Your task to perform on an android device: delete location history Image 0: 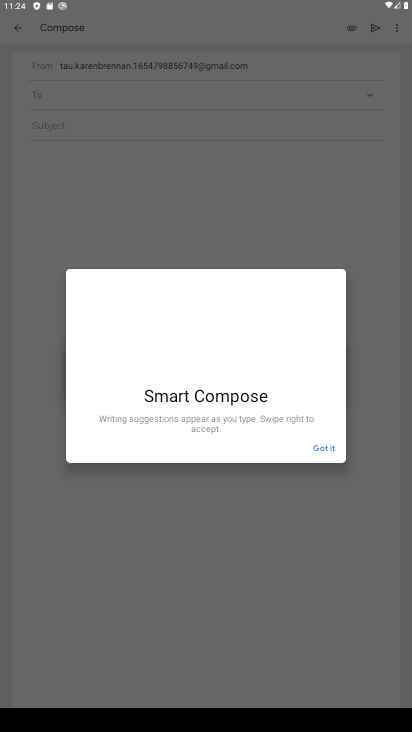
Step 0: press home button
Your task to perform on an android device: delete location history Image 1: 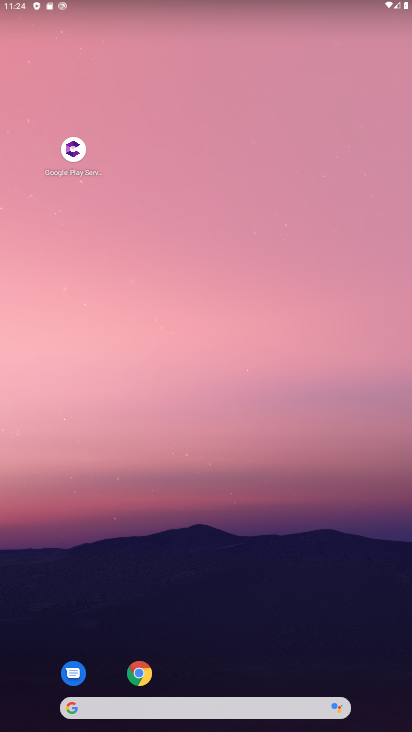
Step 1: drag from (202, 577) to (152, 54)
Your task to perform on an android device: delete location history Image 2: 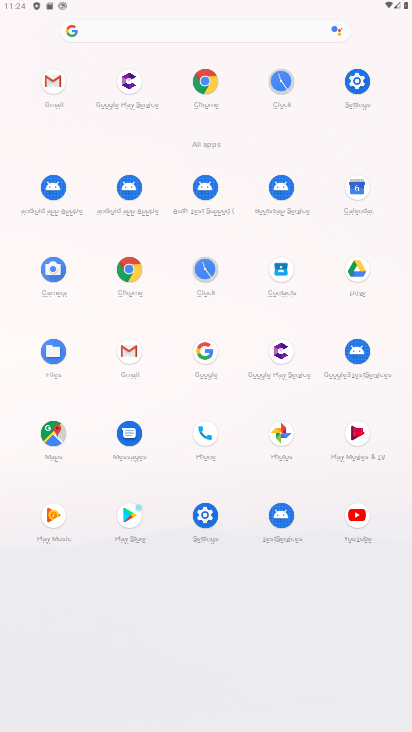
Step 2: click (52, 443)
Your task to perform on an android device: delete location history Image 3: 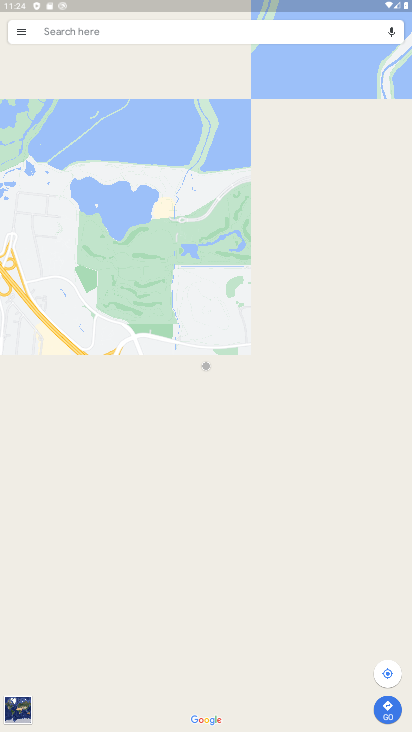
Step 3: click (22, 29)
Your task to perform on an android device: delete location history Image 4: 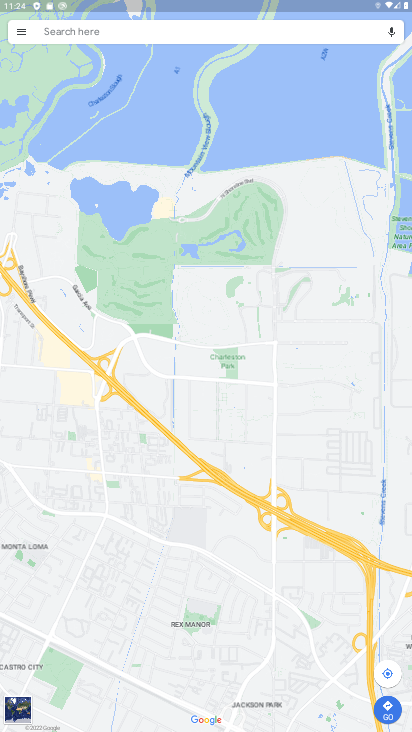
Step 4: click (17, 31)
Your task to perform on an android device: delete location history Image 5: 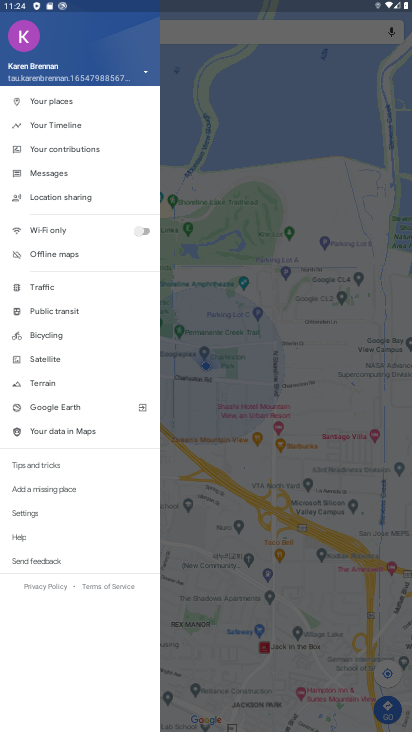
Step 5: click (66, 122)
Your task to perform on an android device: delete location history Image 6: 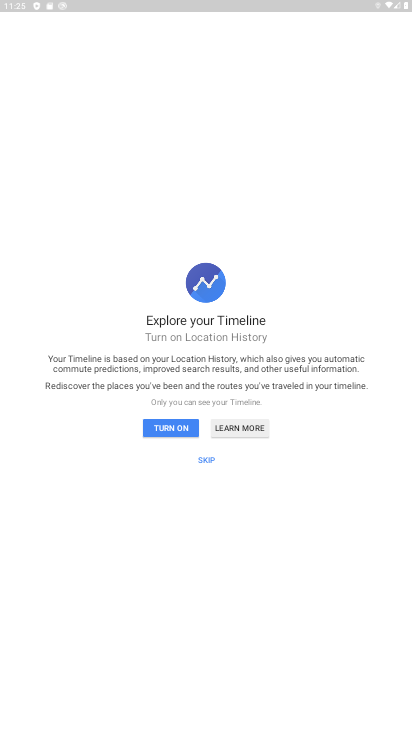
Step 6: click (177, 433)
Your task to perform on an android device: delete location history Image 7: 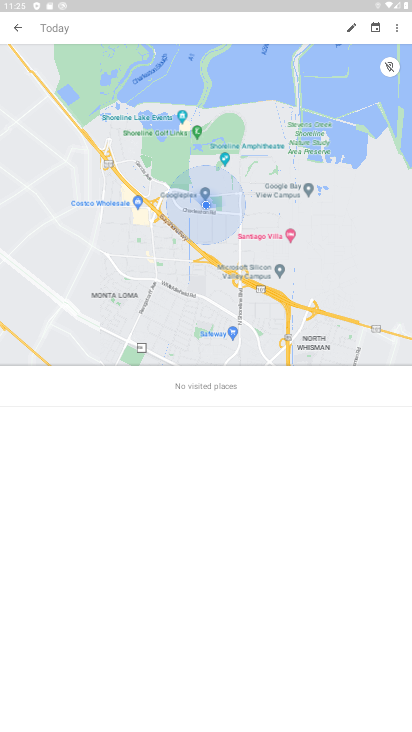
Step 7: click (396, 30)
Your task to perform on an android device: delete location history Image 8: 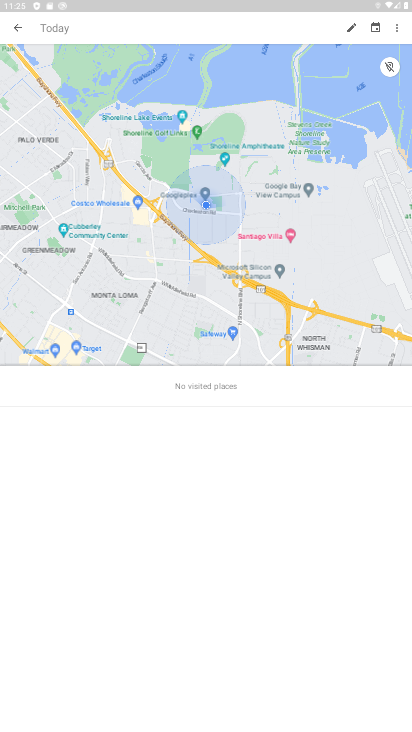
Step 8: click (398, 26)
Your task to perform on an android device: delete location history Image 9: 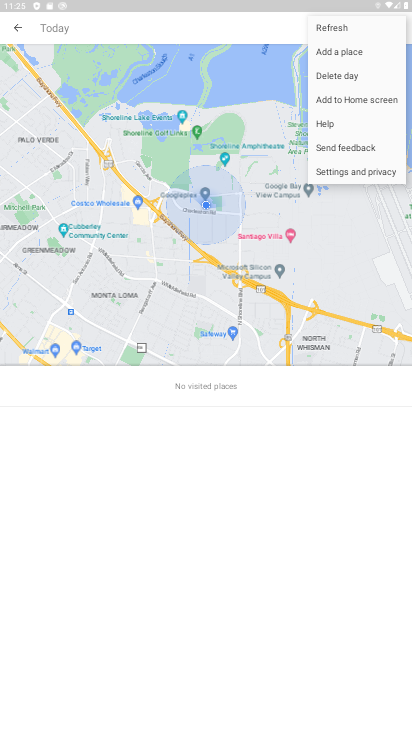
Step 9: click (353, 168)
Your task to perform on an android device: delete location history Image 10: 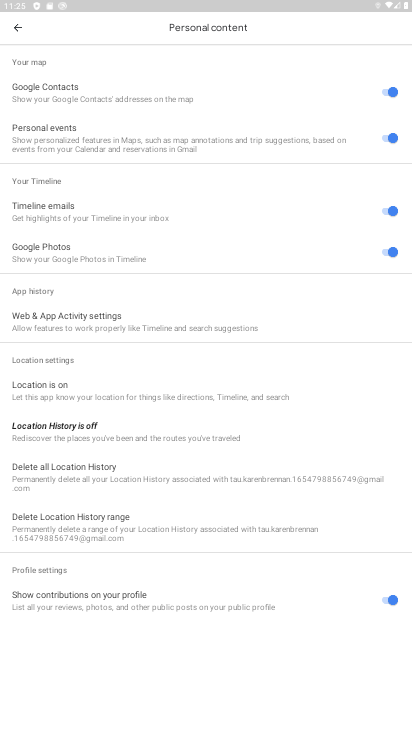
Step 10: click (90, 465)
Your task to perform on an android device: delete location history Image 11: 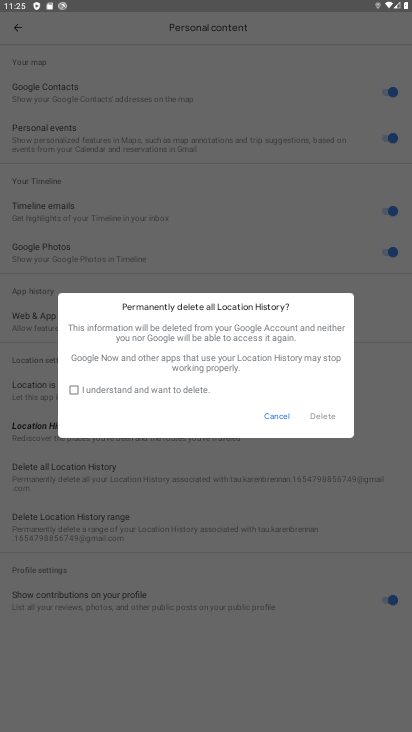
Step 11: click (70, 388)
Your task to perform on an android device: delete location history Image 12: 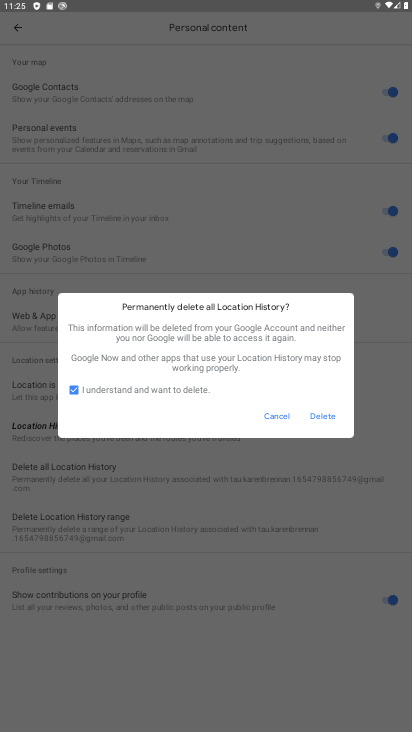
Step 12: click (325, 413)
Your task to perform on an android device: delete location history Image 13: 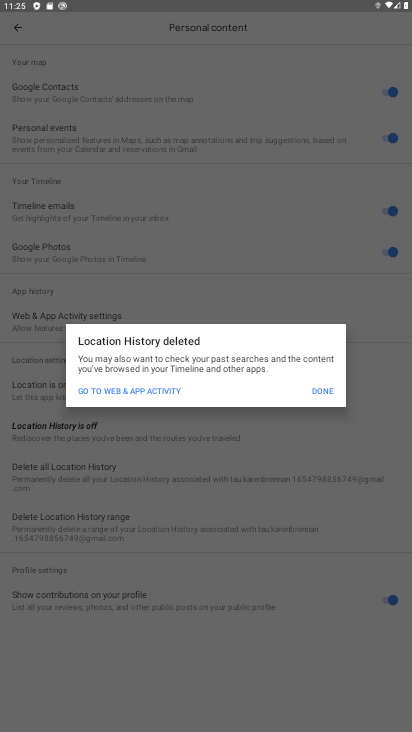
Step 13: click (317, 388)
Your task to perform on an android device: delete location history Image 14: 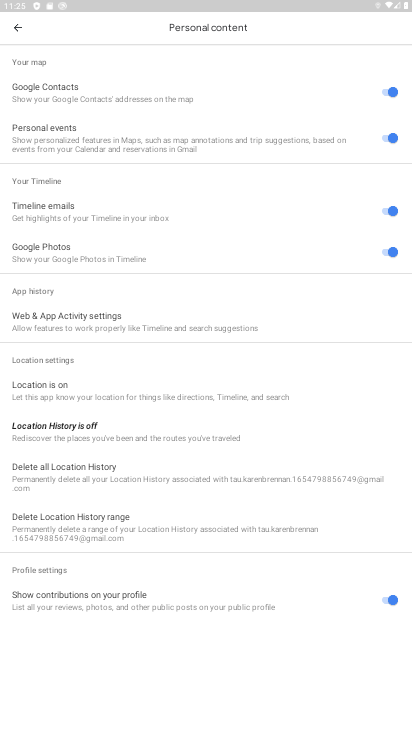
Step 14: task complete